Your task to perform on an android device: Open accessibility settings Image 0: 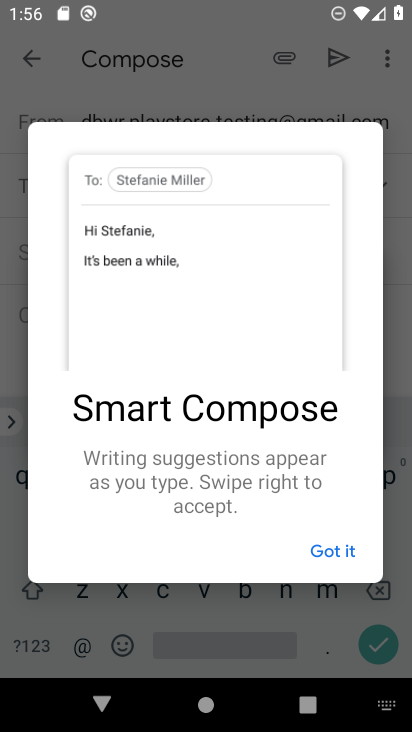
Step 0: press home button
Your task to perform on an android device: Open accessibility settings Image 1: 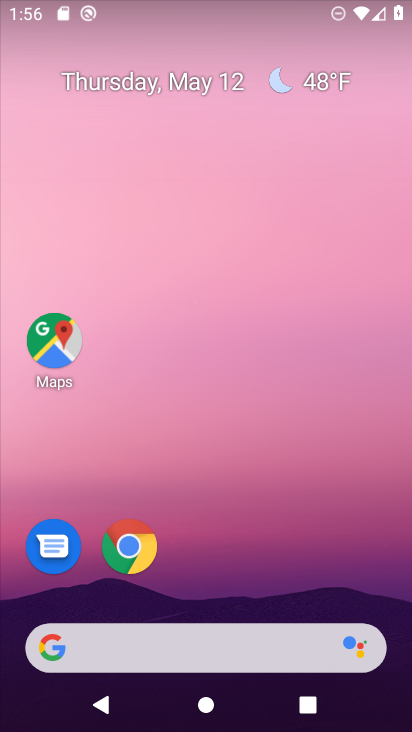
Step 1: drag from (292, 686) to (209, 237)
Your task to perform on an android device: Open accessibility settings Image 2: 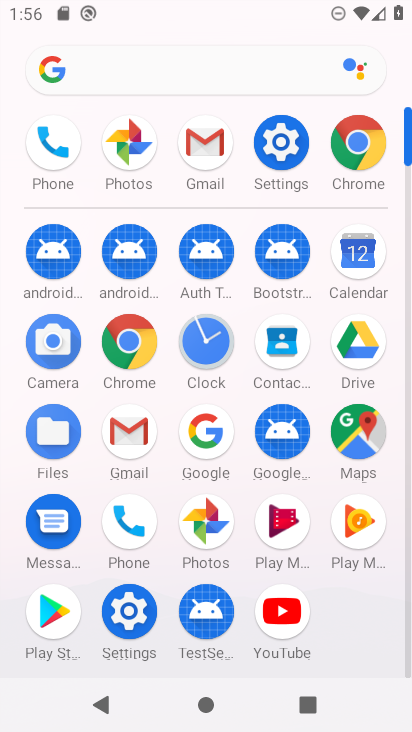
Step 2: click (263, 161)
Your task to perform on an android device: Open accessibility settings Image 3: 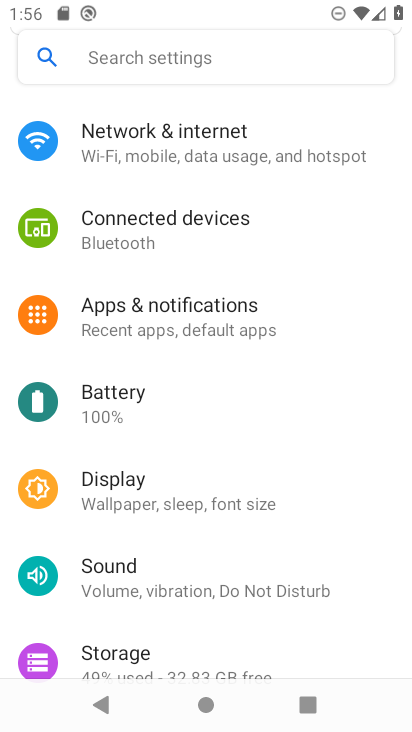
Step 3: click (144, 69)
Your task to perform on an android device: Open accessibility settings Image 4: 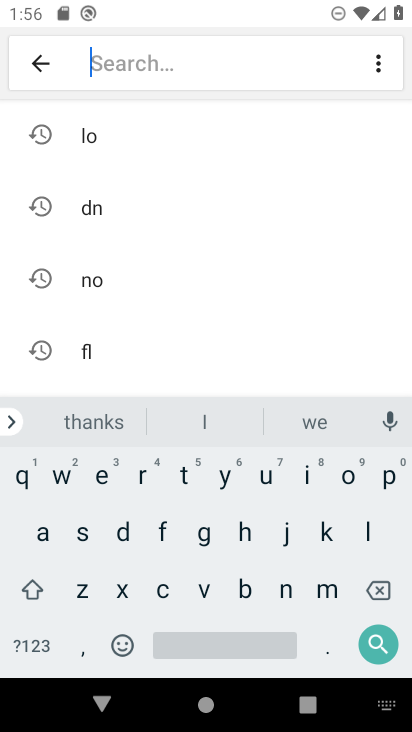
Step 4: click (45, 541)
Your task to perform on an android device: Open accessibility settings Image 5: 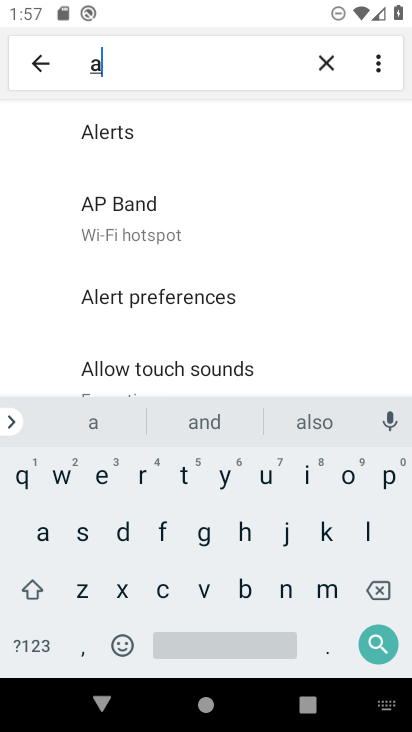
Step 5: click (162, 588)
Your task to perform on an android device: Open accessibility settings Image 6: 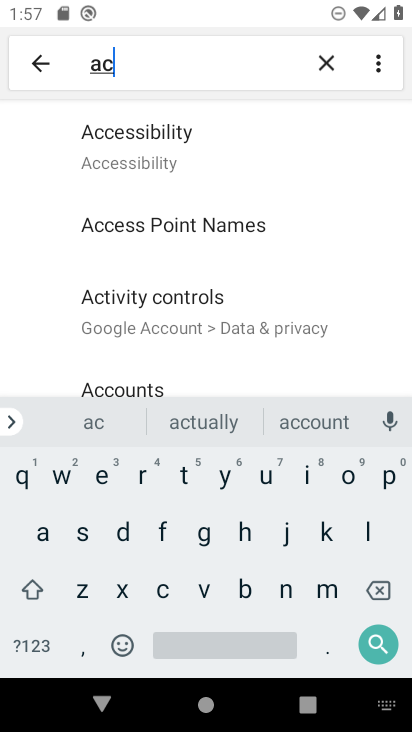
Step 6: click (192, 150)
Your task to perform on an android device: Open accessibility settings Image 7: 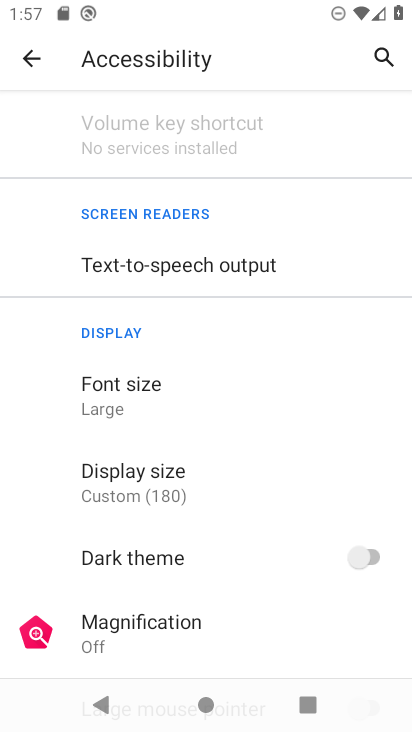
Step 7: task complete